Your task to perform on an android device: Open Amazon Image 0: 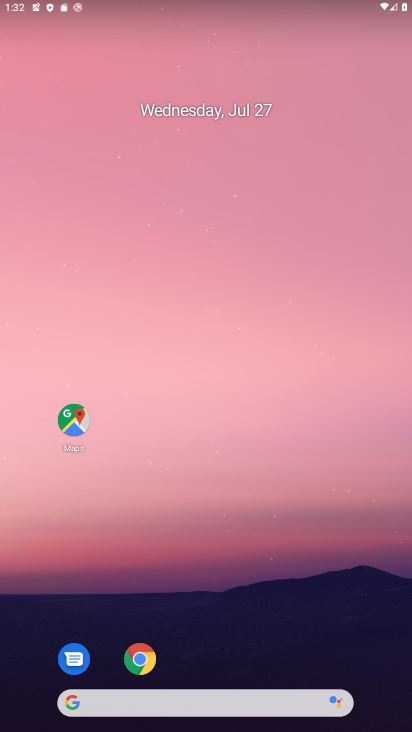
Step 0: click (238, 27)
Your task to perform on an android device: Open Amazon Image 1: 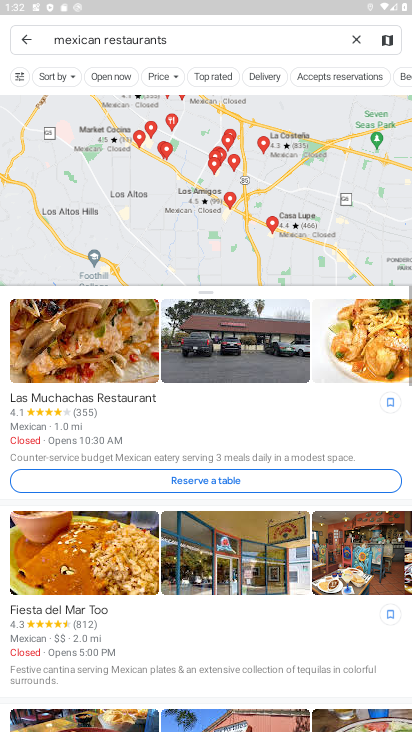
Step 1: press home button
Your task to perform on an android device: Open Amazon Image 2: 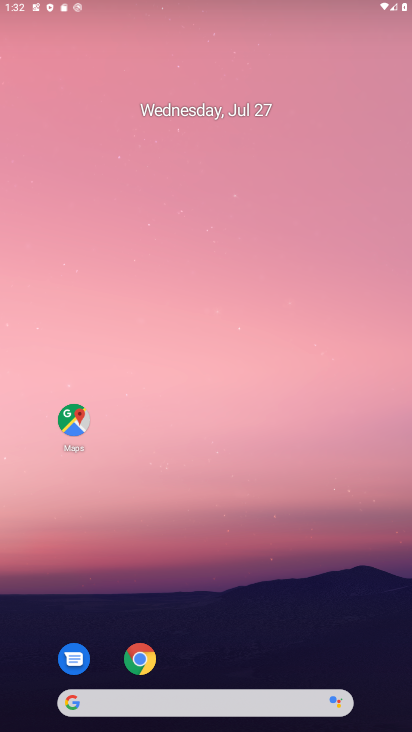
Step 2: drag from (357, 588) to (253, 77)
Your task to perform on an android device: Open Amazon Image 3: 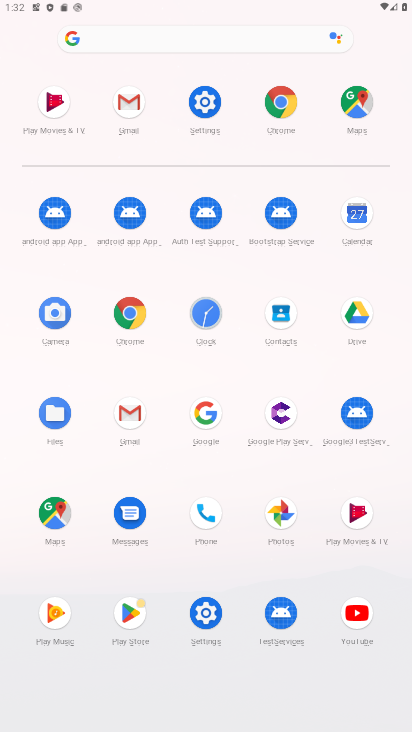
Step 3: click (288, 108)
Your task to perform on an android device: Open Amazon Image 4: 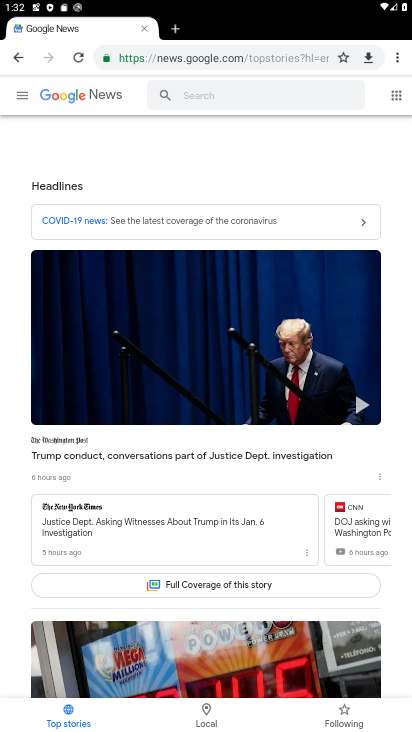
Step 4: click (228, 57)
Your task to perform on an android device: Open Amazon Image 5: 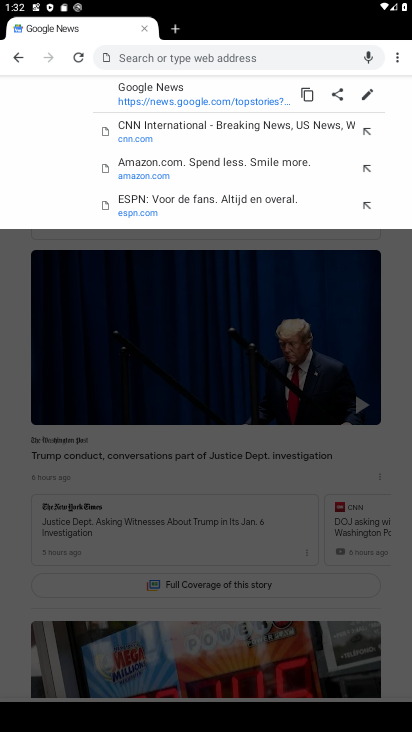
Step 5: click (161, 169)
Your task to perform on an android device: Open Amazon Image 6: 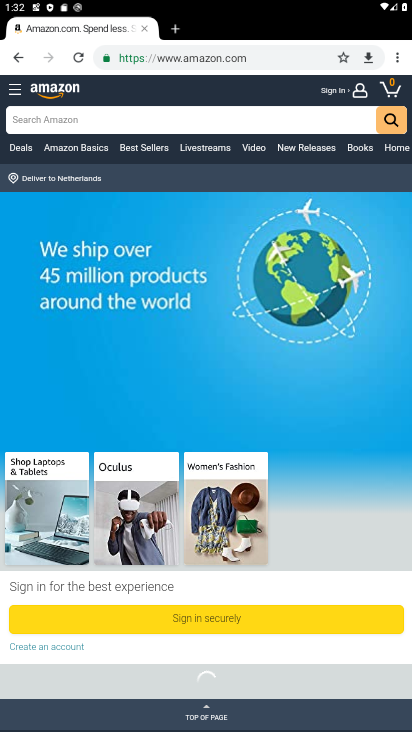
Step 6: task complete